Your task to perform on an android device: Go to eBay Image 0: 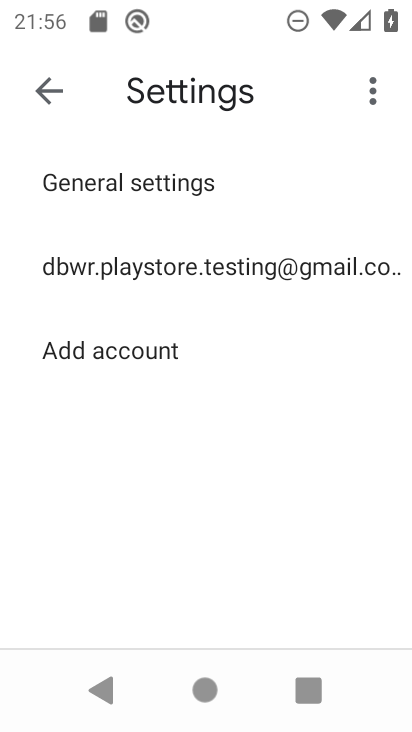
Step 0: press home button
Your task to perform on an android device: Go to eBay Image 1: 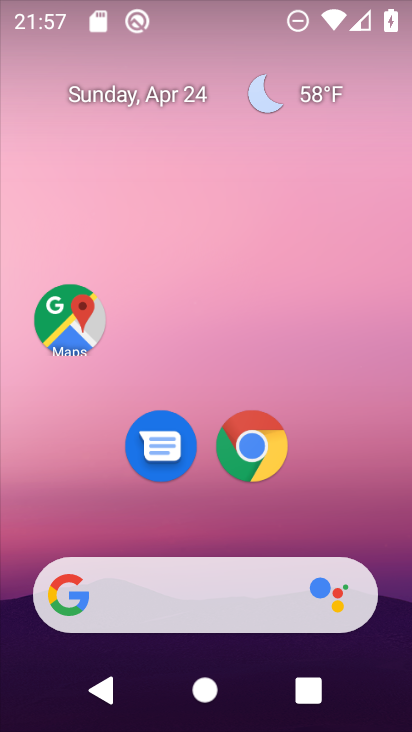
Step 1: click (244, 450)
Your task to perform on an android device: Go to eBay Image 2: 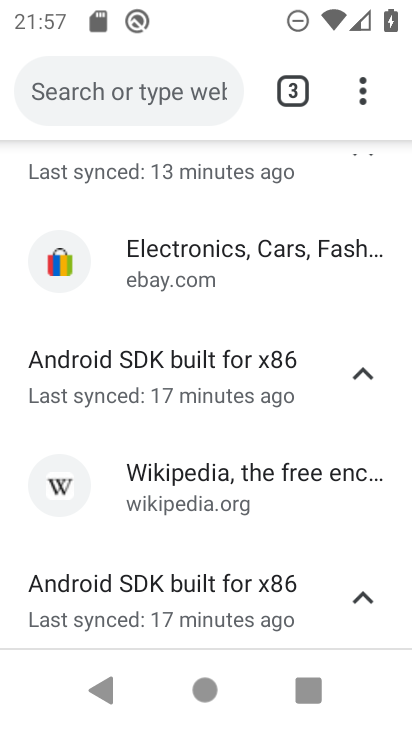
Step 2: drag from (359, 97) to (90, 178)
Your task to perform on an android device: Go to eBay Image 3: 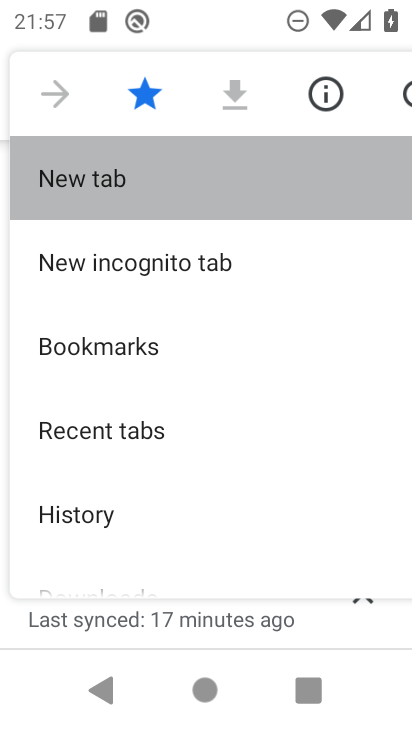
Step 3: click (90, 178)
Your task to perform on an android device: Go to eBay Image 4: 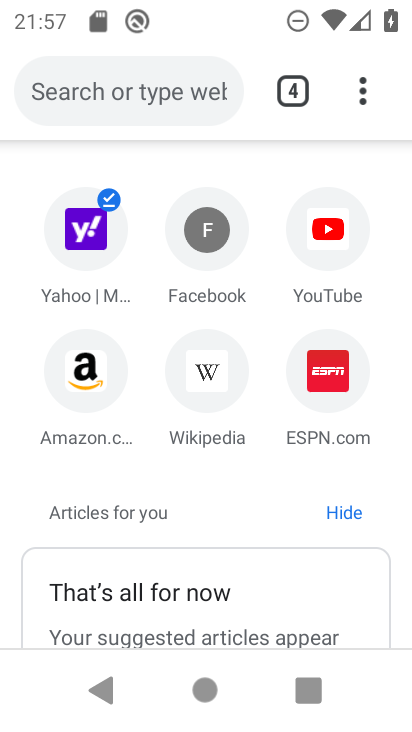
Step 4: click (127, 93)
Your task to perform on an android device: Go to eBay Image 5: 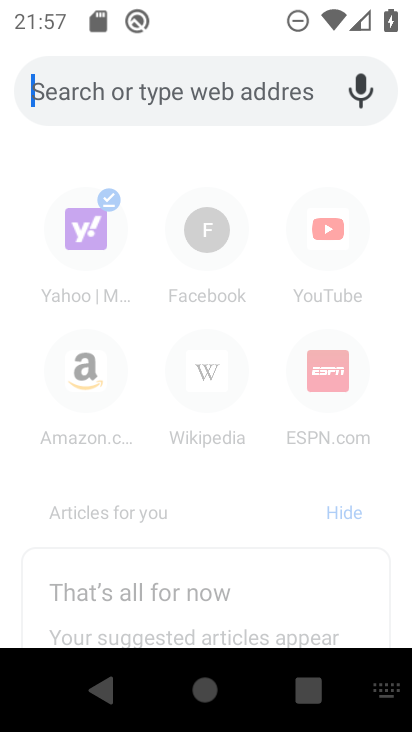
Step 5: type "ebay"
Your task to perform on an android device: Go to eBay Image 6: 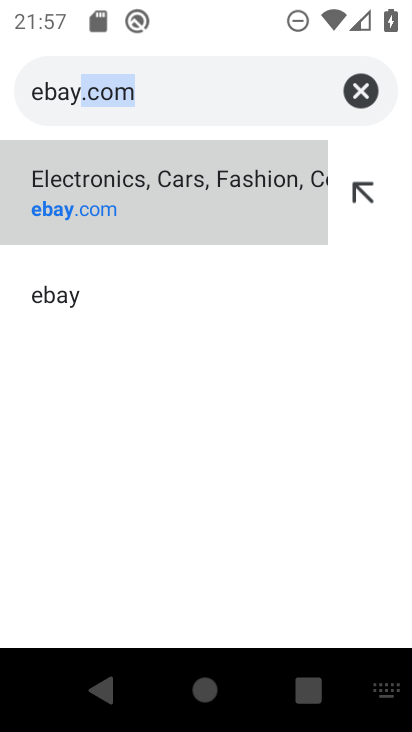
Step 6: click (60, 301)
Your task to perform on an android device: Go to eBay Image 7: 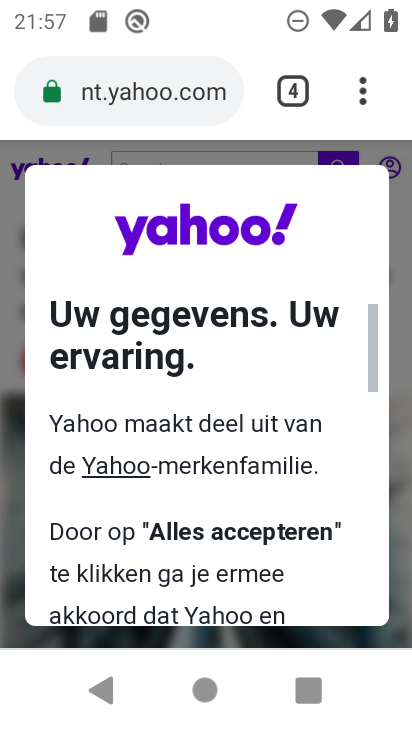
Step 7: task complete